Your task to perform on an android device: Go to battery settings Image 0: 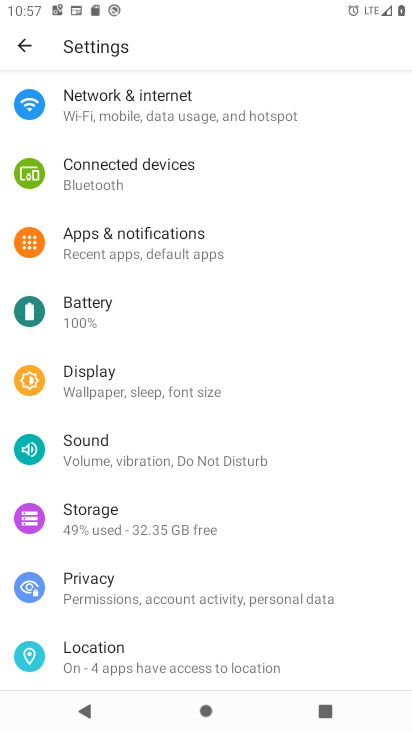
Step 0: click (155, 306)
Your task to perform on an android device: Go to battery settings Image 1: 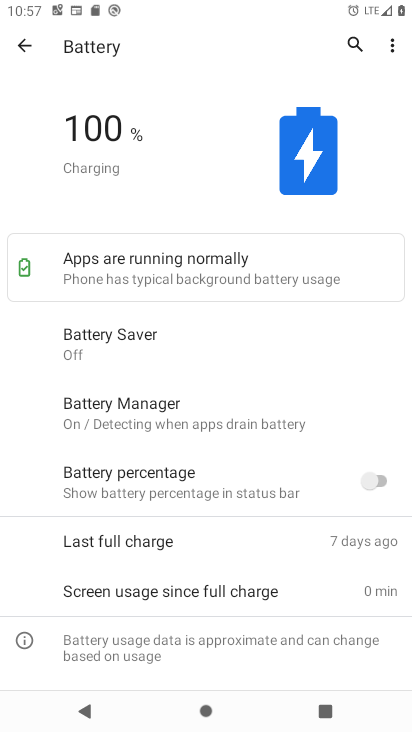
Step 1: task complete